Your task to perform on an android device: Go to sound settings Image 0: 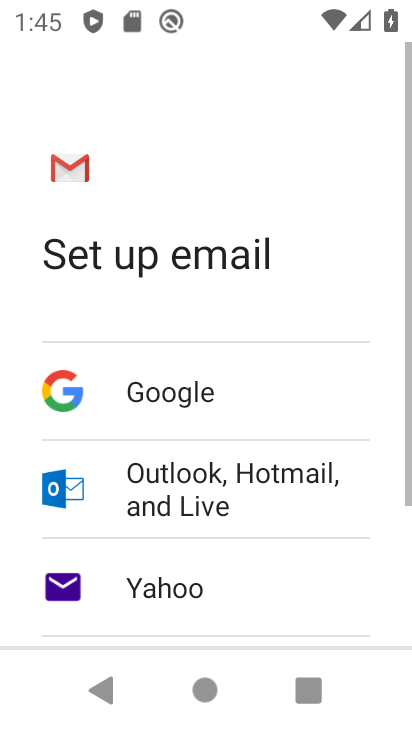
Step 0: press home button
Your task to perform on an android device: Go to sound settings Image 1: 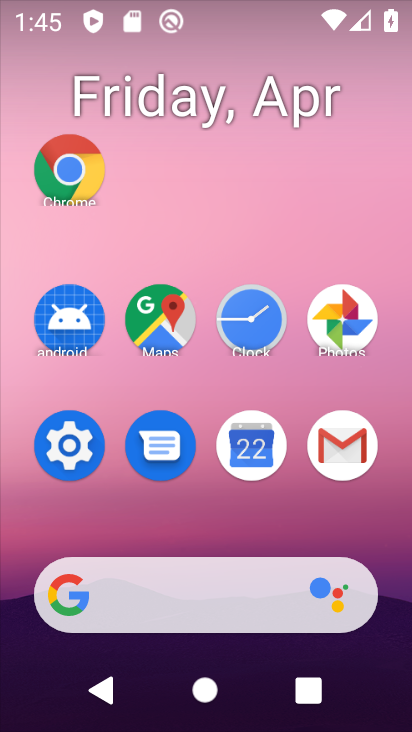
Step 1: click (72, 448)
Your task to perform on an android device: Go to sound settings Image 2: 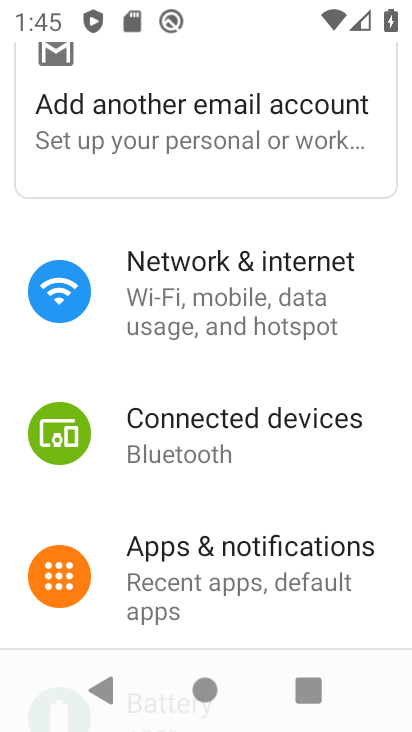
Step 2: drag from (257, 483) to (85, 12)
Your task to perform on an android device: Go to sound settings Image 3: 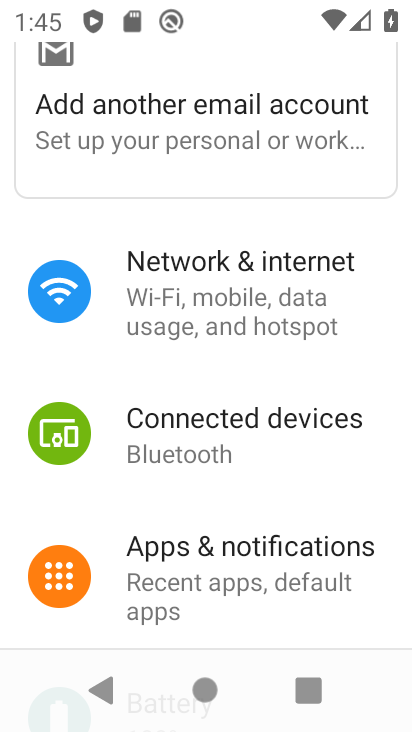
Step 3: drag from (231, 594) to (144, 25)
Your task to perform on an android device: Go to sound settings Image 4: 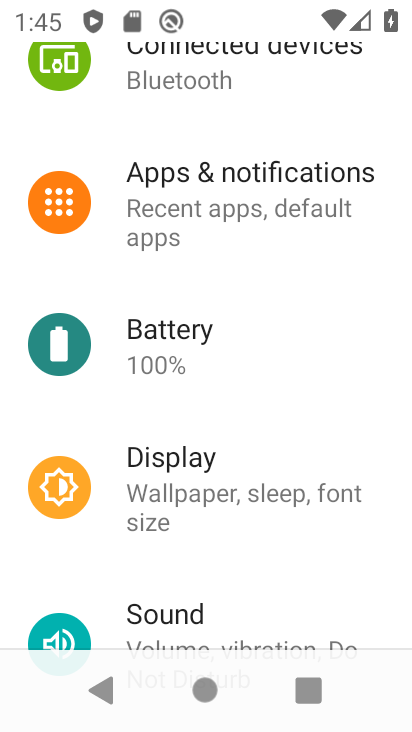
Step 4: click (158, 607)
Your task to perform on an android device: Go to sound settings Image 5: 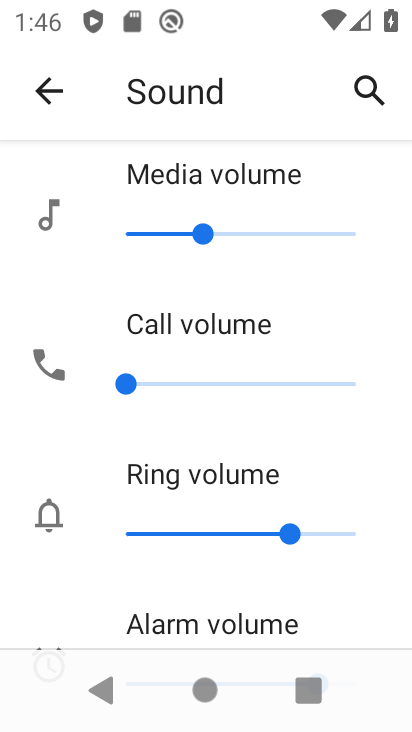
Step 5: task complete